Your task to perform on an android device: Open Google Image 0: 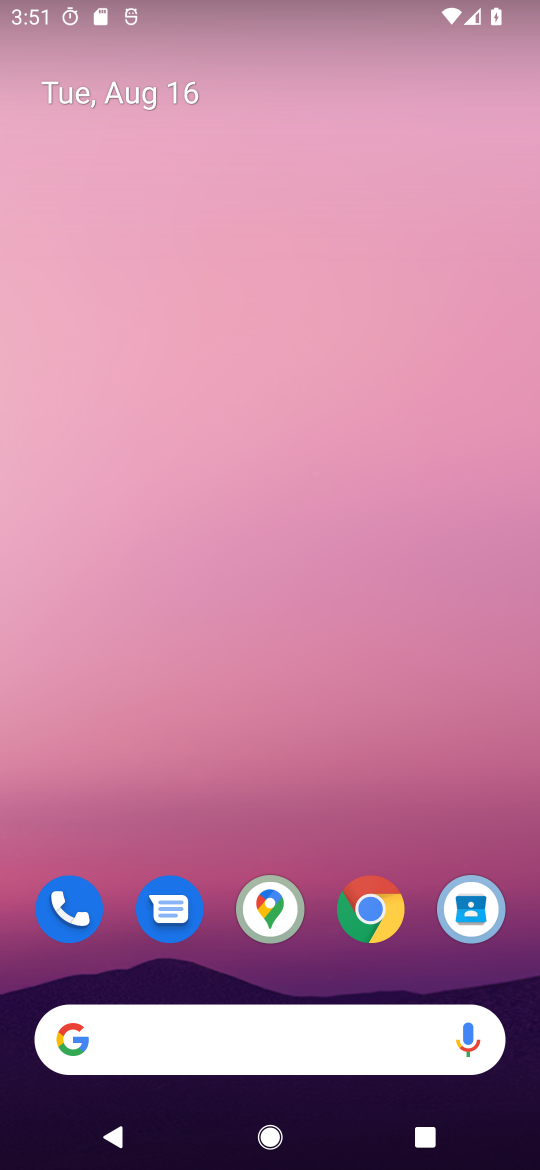
Step 0: click (203, 1043)
Your task to perform on an android device: Open Google Image 1: 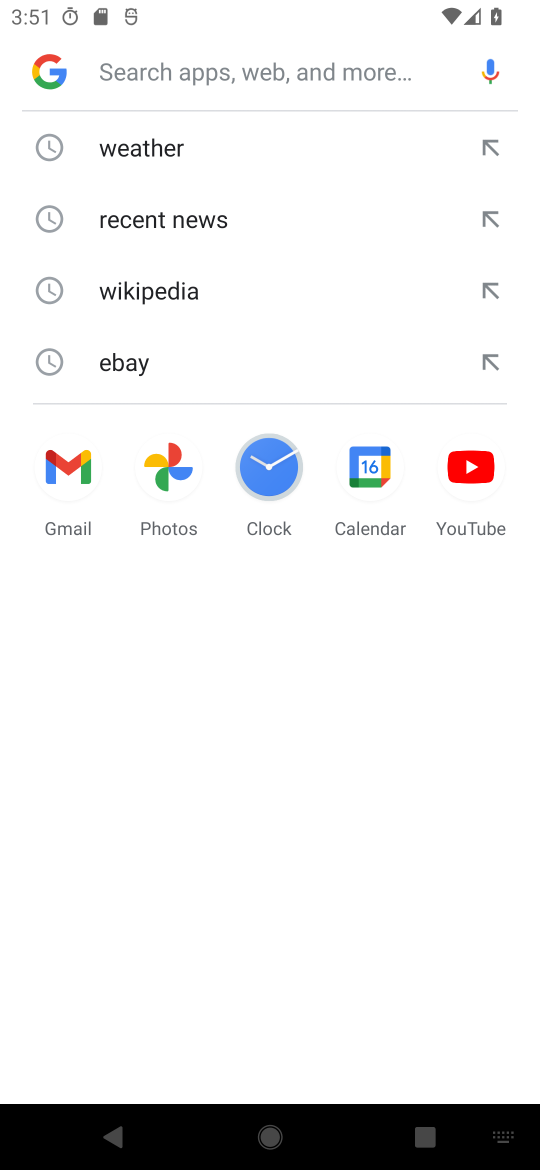
Step 1: task complete